Your task to perform on an android device: Is it going to rain tomorrow? Image 0: 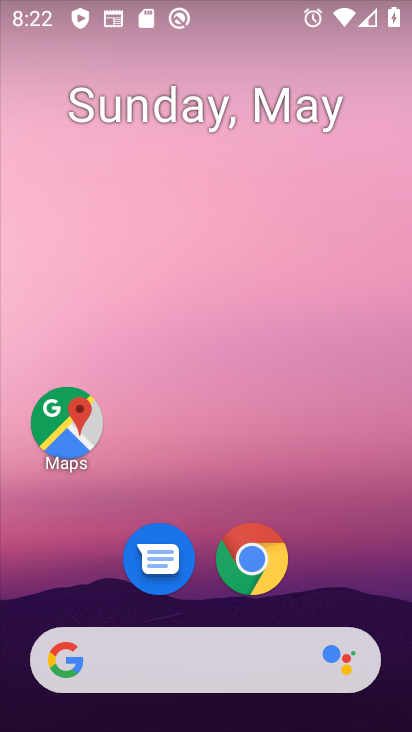
Step 0: press home button
Your task to perform on an android device: Is it going to rain tomorrow? Image 1: 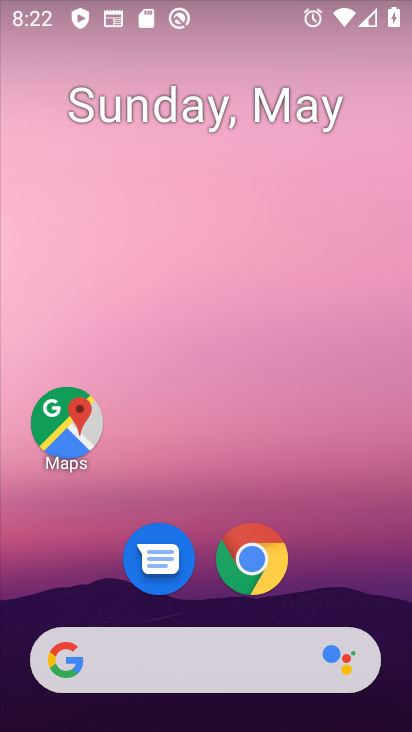
Step 1: click (143, 675)
Your task to perform on an android device: Is it going to rain tomorrow? Image 2: 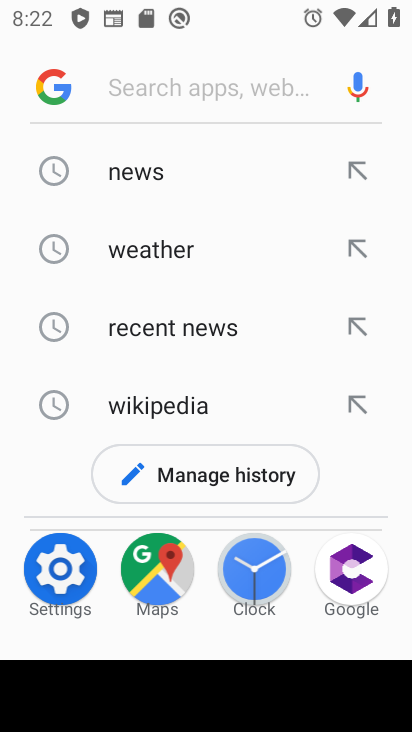
Step 2: click (143, 260)
Your task to perform on an android device: Is it going to rain tomorrow? Image 3: 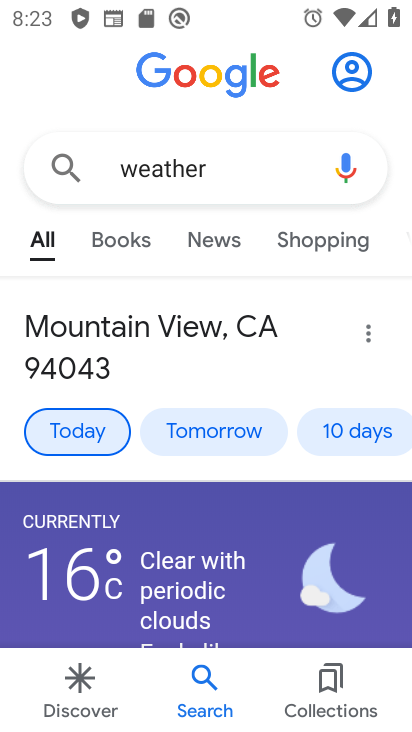
Step 3: click (208, 431)
Your task to perform on an android device: Is it going to rain tomorrow? Image 4: 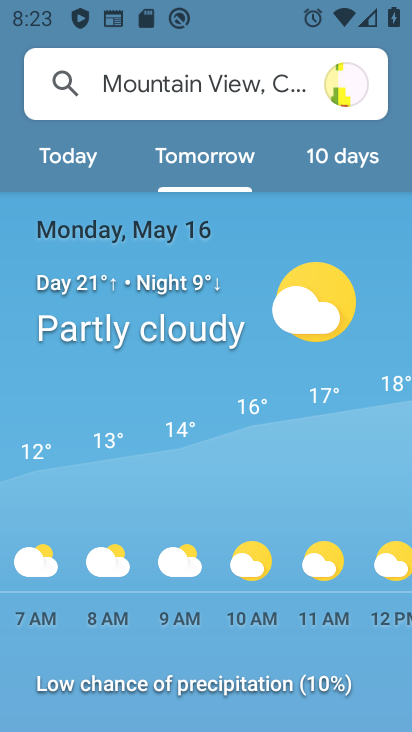
Step 4: task complete